Your task to perform on an android device: move a message to another label in the gmail app Image 0: 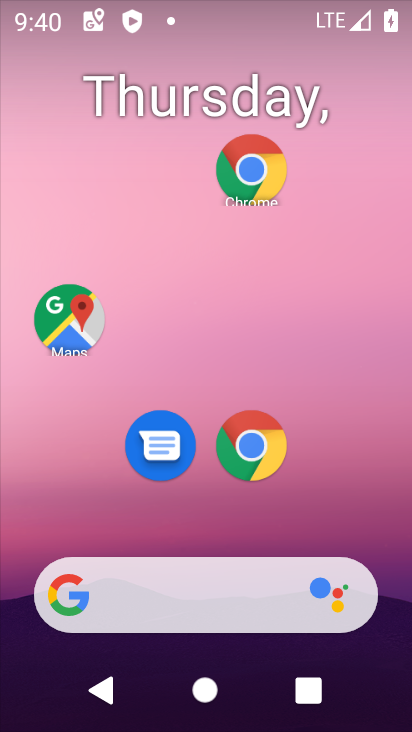
Step 0: drag from (208, 525) to (183, 4)
Your task to perform on an android device: move a message to another label in the gmail app Image 1: 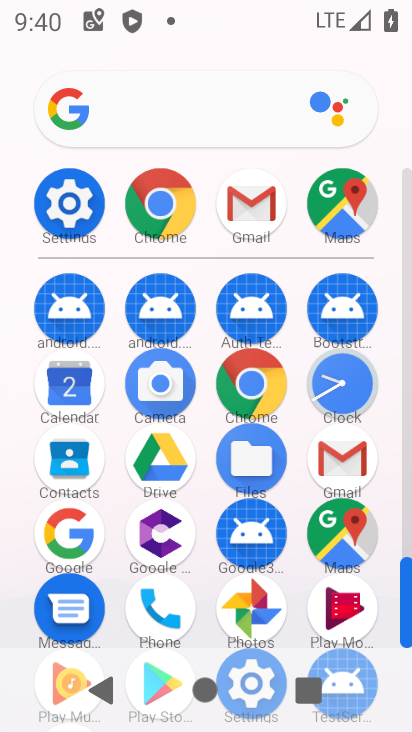
Step 1: click (332, 459)
Your task to perform on an android device: move a message to another label in the gmail app Image 2: 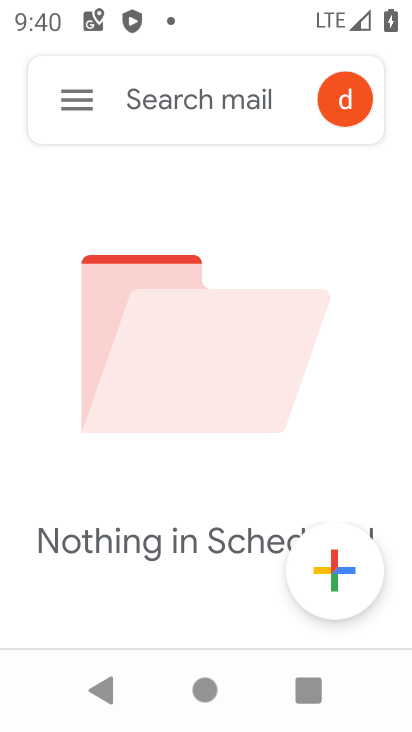
Step 2: click (78, 101)
Your task to perform on an android device: move a message to another label in the gmail app Image 3: 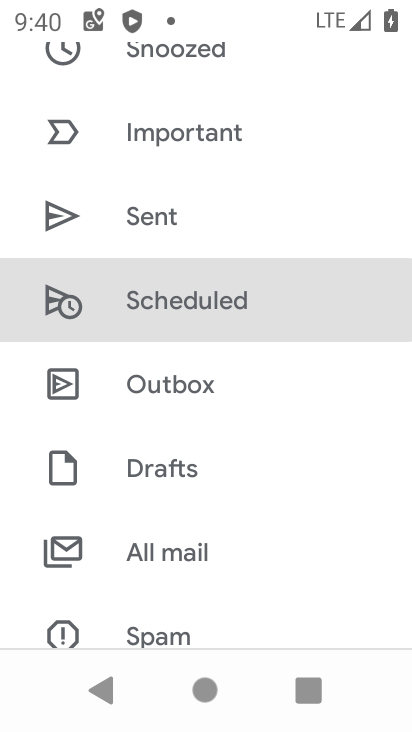
Step 3: click (180, 379)
Your task to perform on an android device: move a message to another label in the gmail app Image 4: 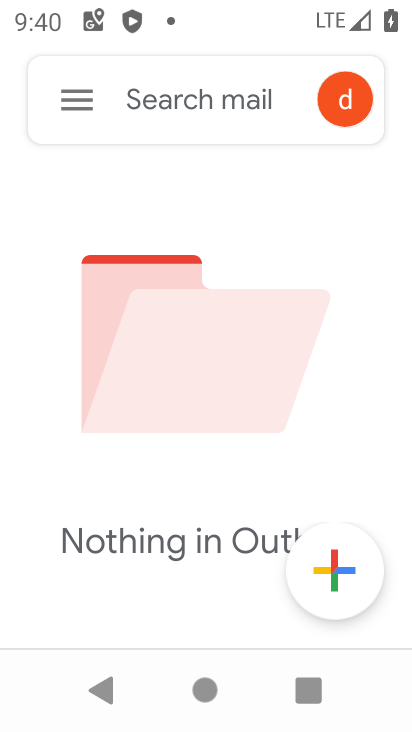
Step 4: task complete